Your task to perform on an android device: open app "Google Chrome" Image 0: 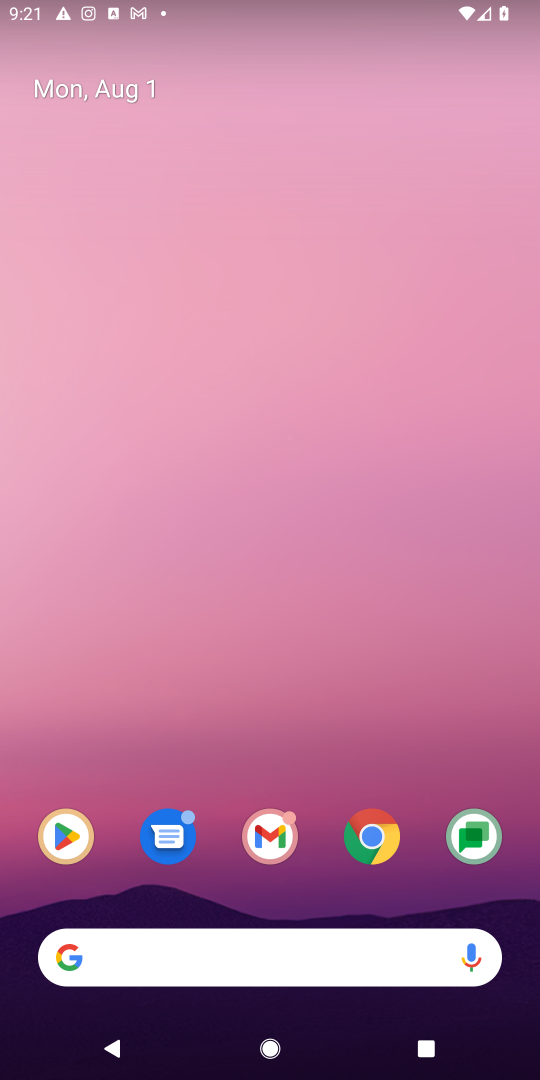
Step 0: click (77, 839)
Your task to perform on an android device: open app "Google Chrome" Image 1: 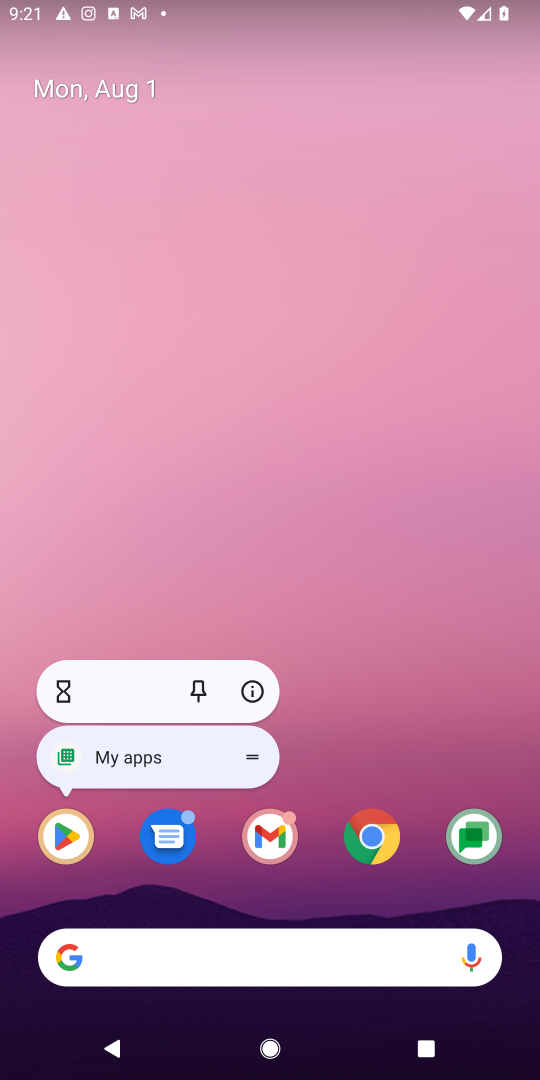
Step 1: click (66, 843)
Your task to perform on an android device: open app "Google Chrome" Image 2: 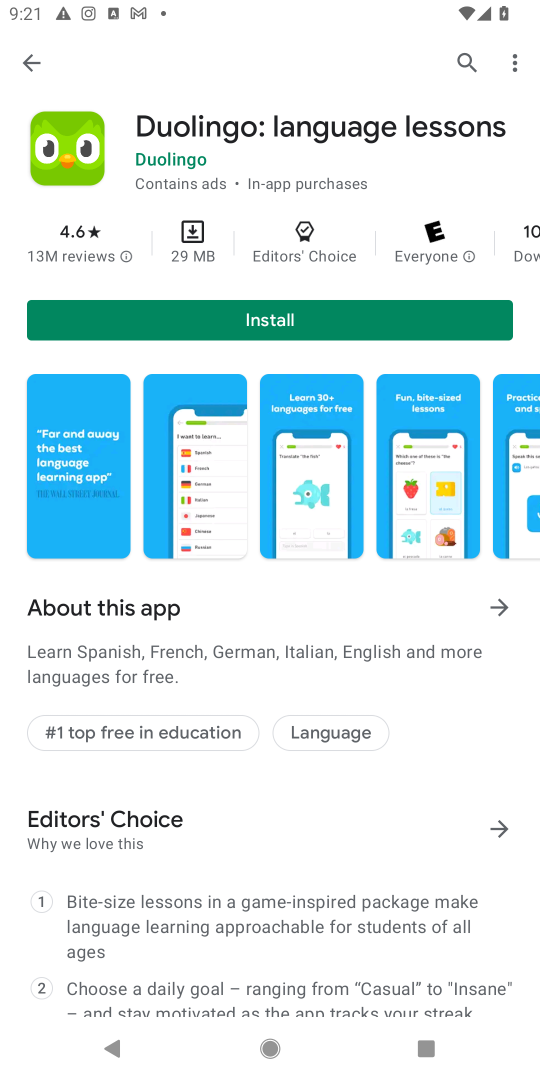
Step 2: click (461, 46)
Your task to perform on an android device: open app "Google Chrome" Image 3: 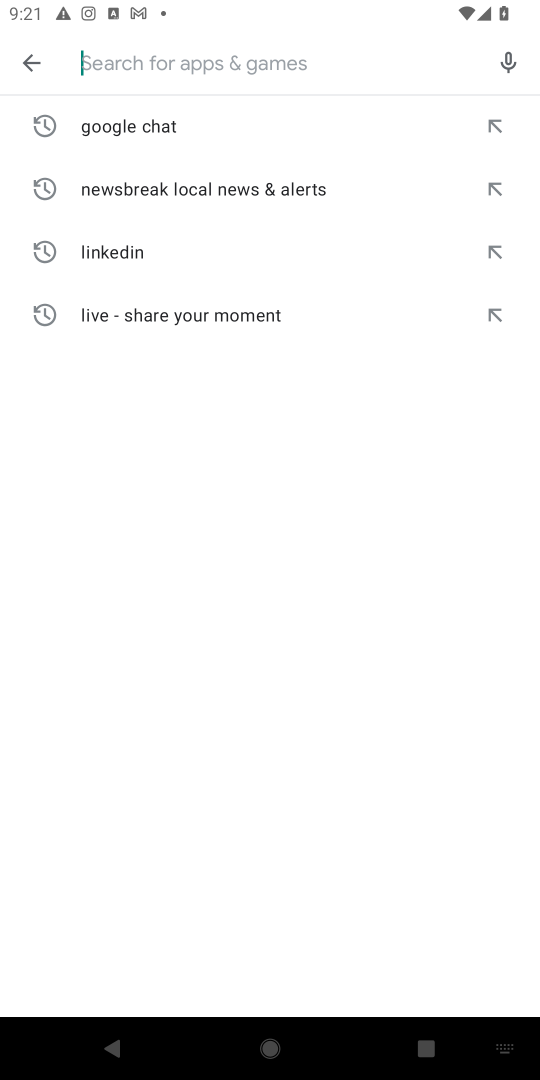
Step 3: type "Google Chrome"
Your task to perform on an android device: open app "Google Chrome" Image 4: 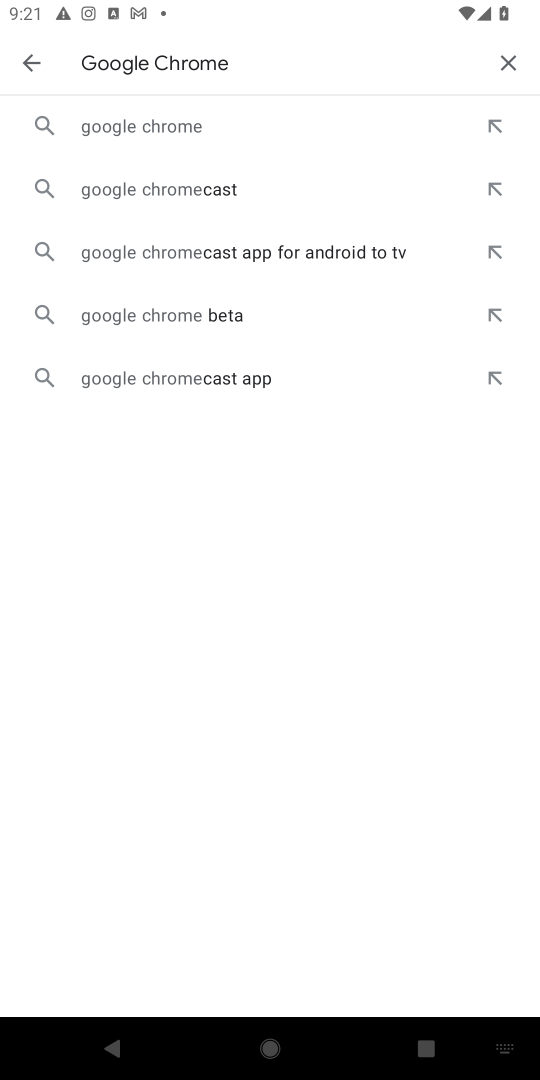
Step 4: click (207, 135)
Your task to perform on an android device: open app "Google Chrome" Image 5: 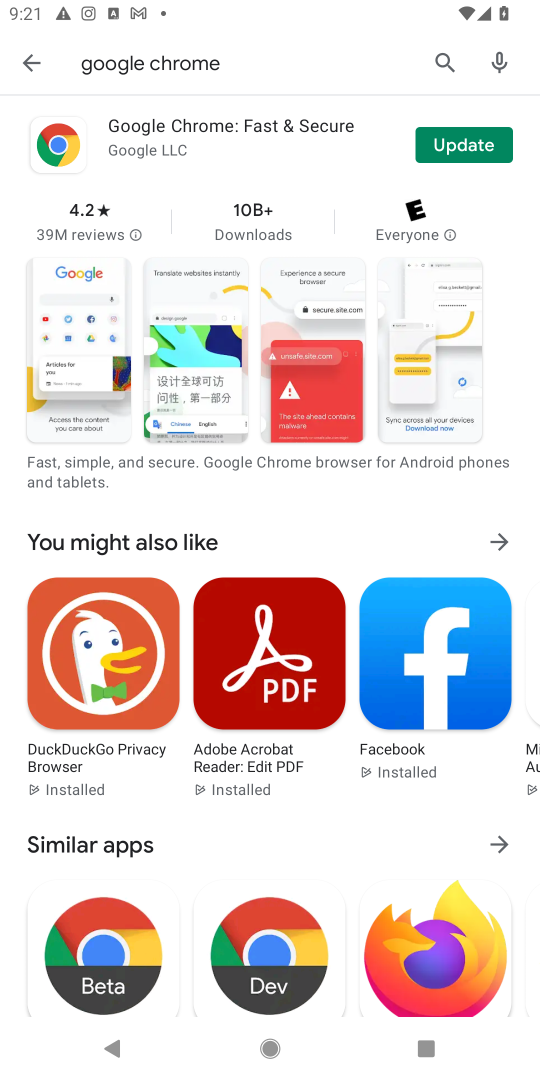
Step 5: click (167, 147)
Your task to perform on an android device: open app "Google Chrome" Image 6: 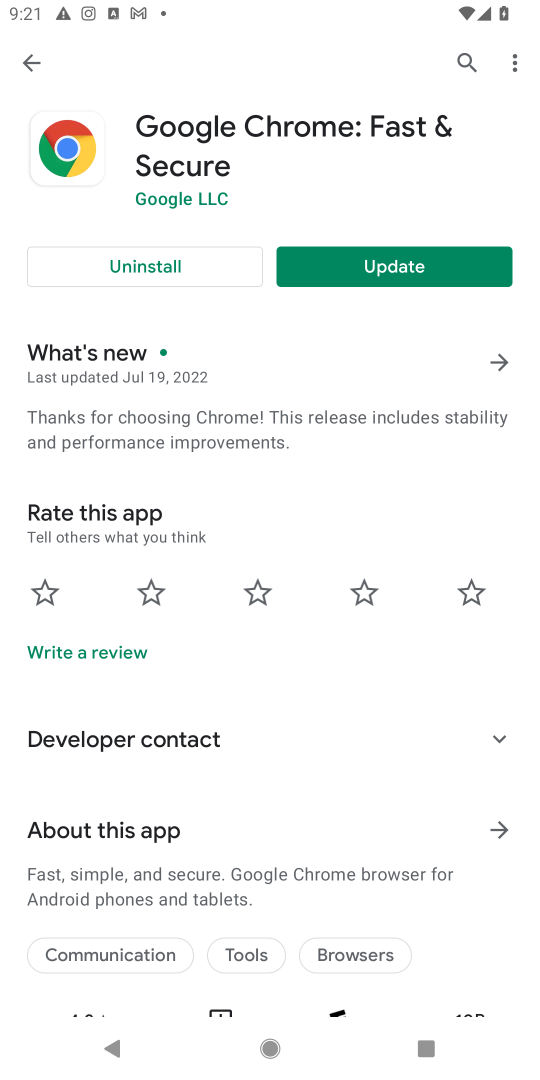
Step 6: task complete